Your task to perform on an android device: When is my next appointment? Image 0: 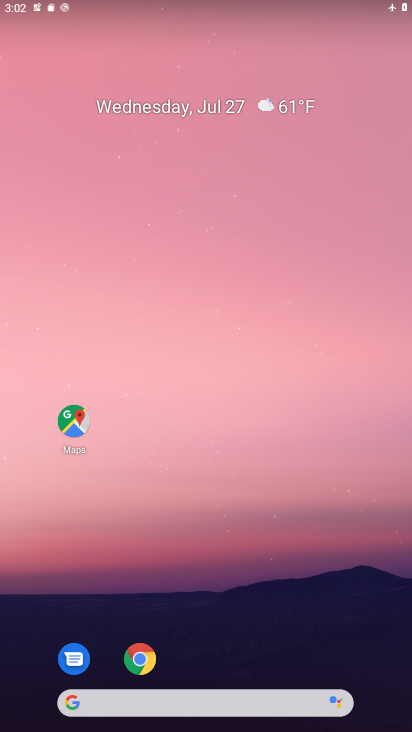
Step 0: drag from (197, 698) to (234, 160)
Your task to perform on an android device: When is my next appointment? Image 1: 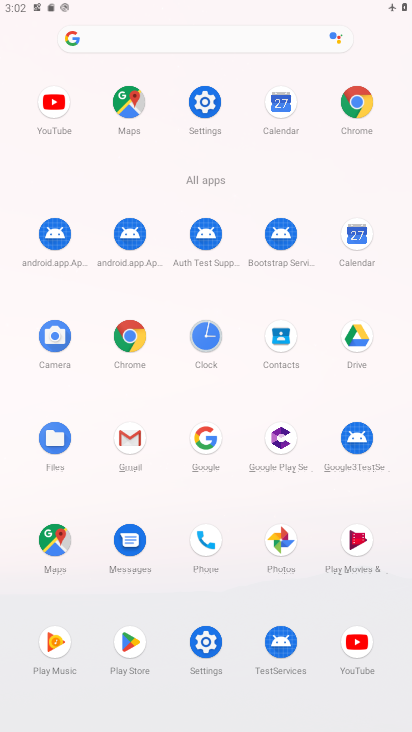
Step 1: click (382, 212)
Your task to perform on an android device: When is my next appointment? Image 2: 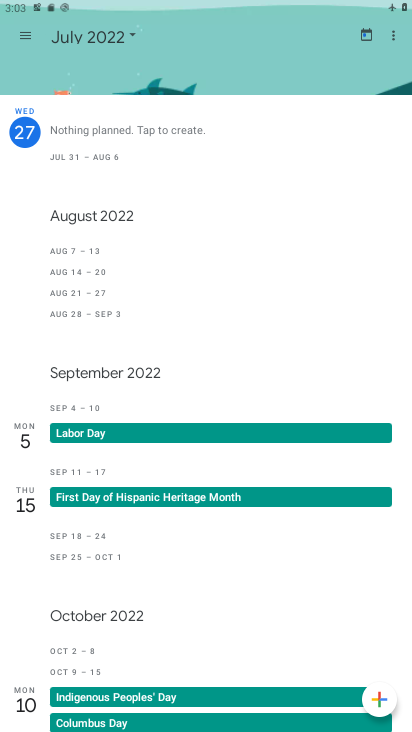
Step 2: click (23, 42)
Your task to perform on an android device: When is my next appointment? Image 3: 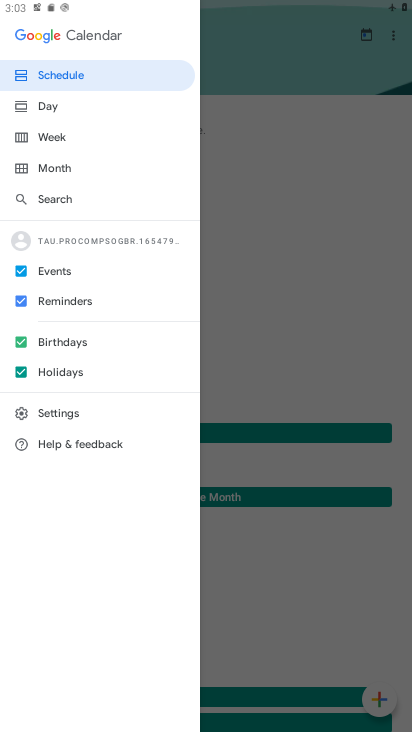
Step 3: click (84, 77)
Your task to perform on an android device: When is my next appointment? Image 4: 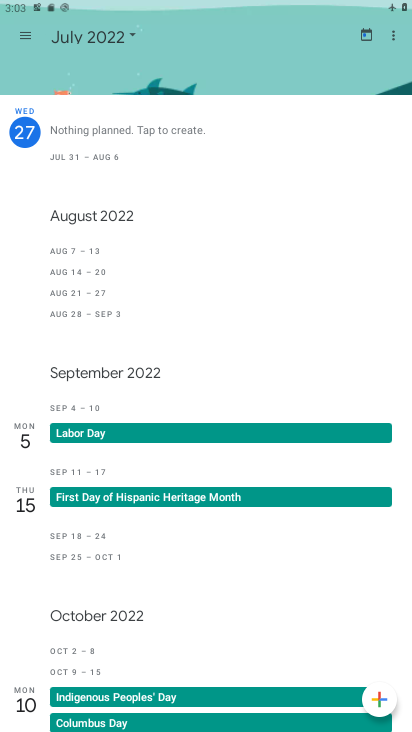
Step 4: task complete